Your task to perform on an android device: Search for a new phone on Amazon. Image 0: 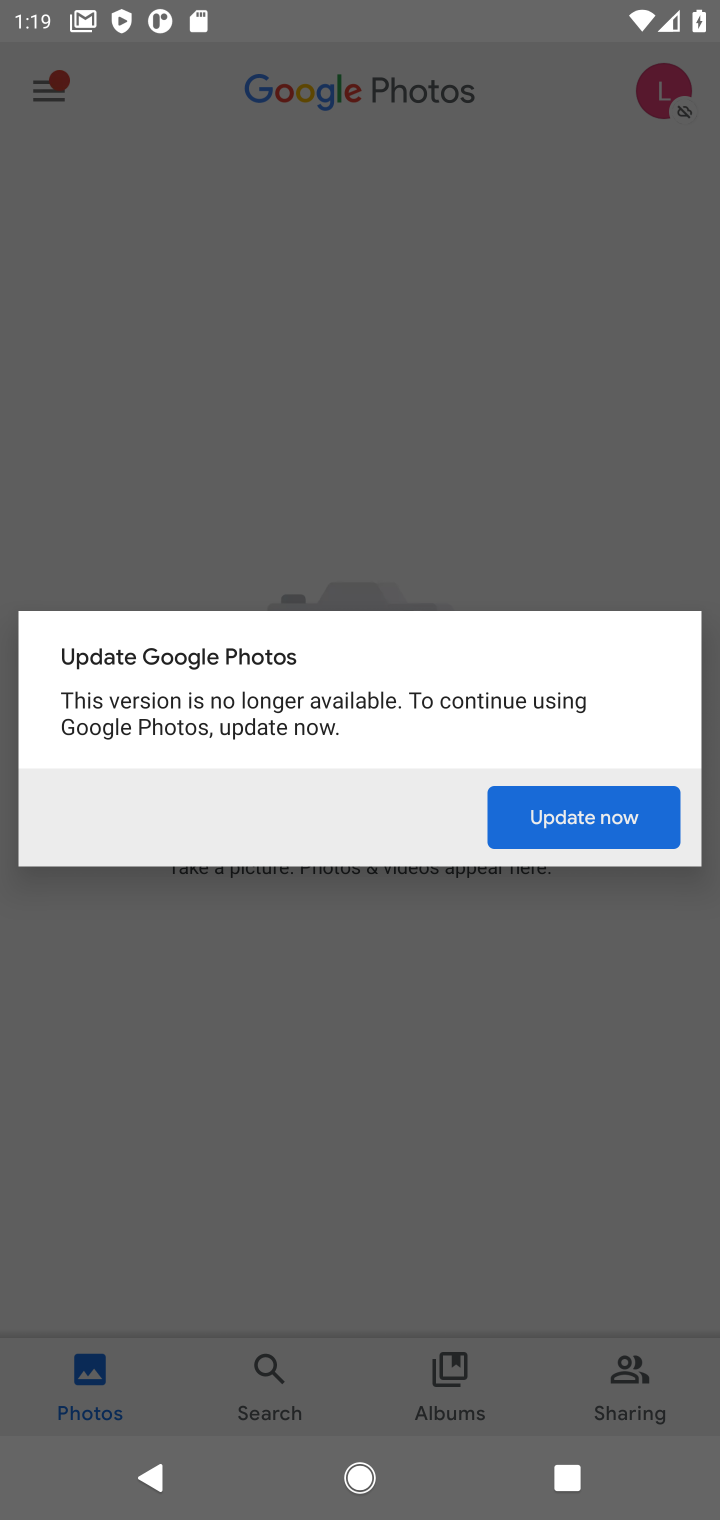
Step 0: press home button
Your task to perform on an android device: Search for a new phone on Amazon. Image 1: 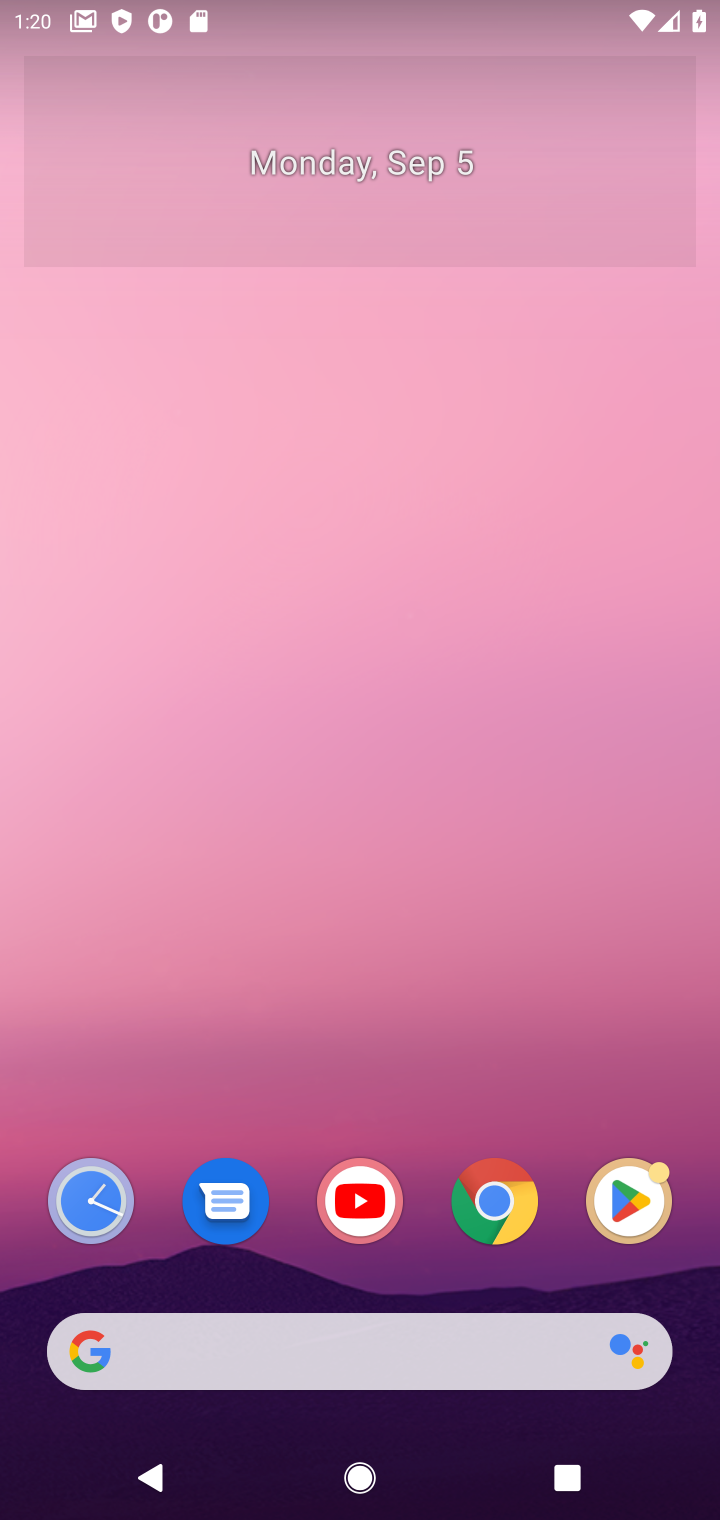
Step 1: click (474, 1201)
Your task to perform on an android device: Search for a new phone on Amazon. Image 2: 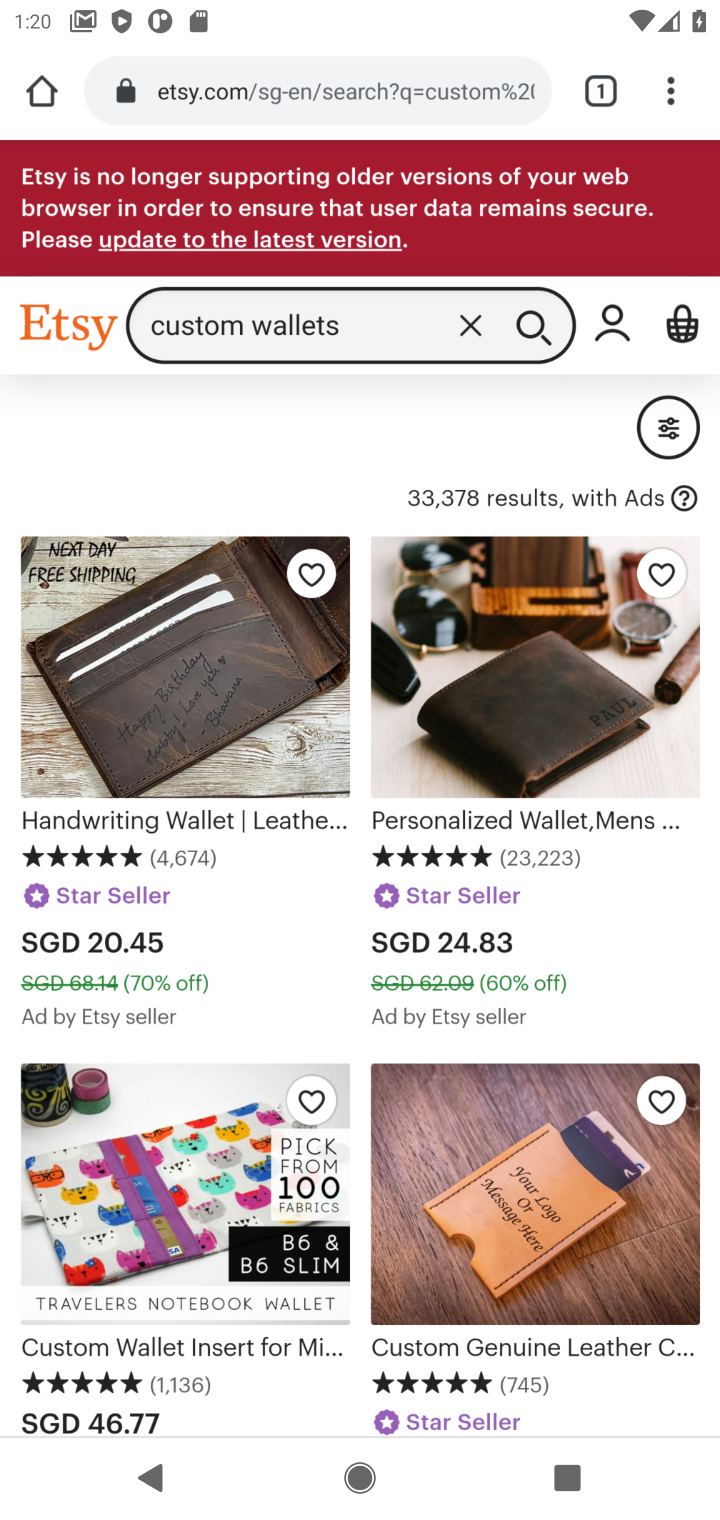
Step 2: click (480, 1193)
Your task to perform on an android device: Search for a new phone on Amazon. Image 3: 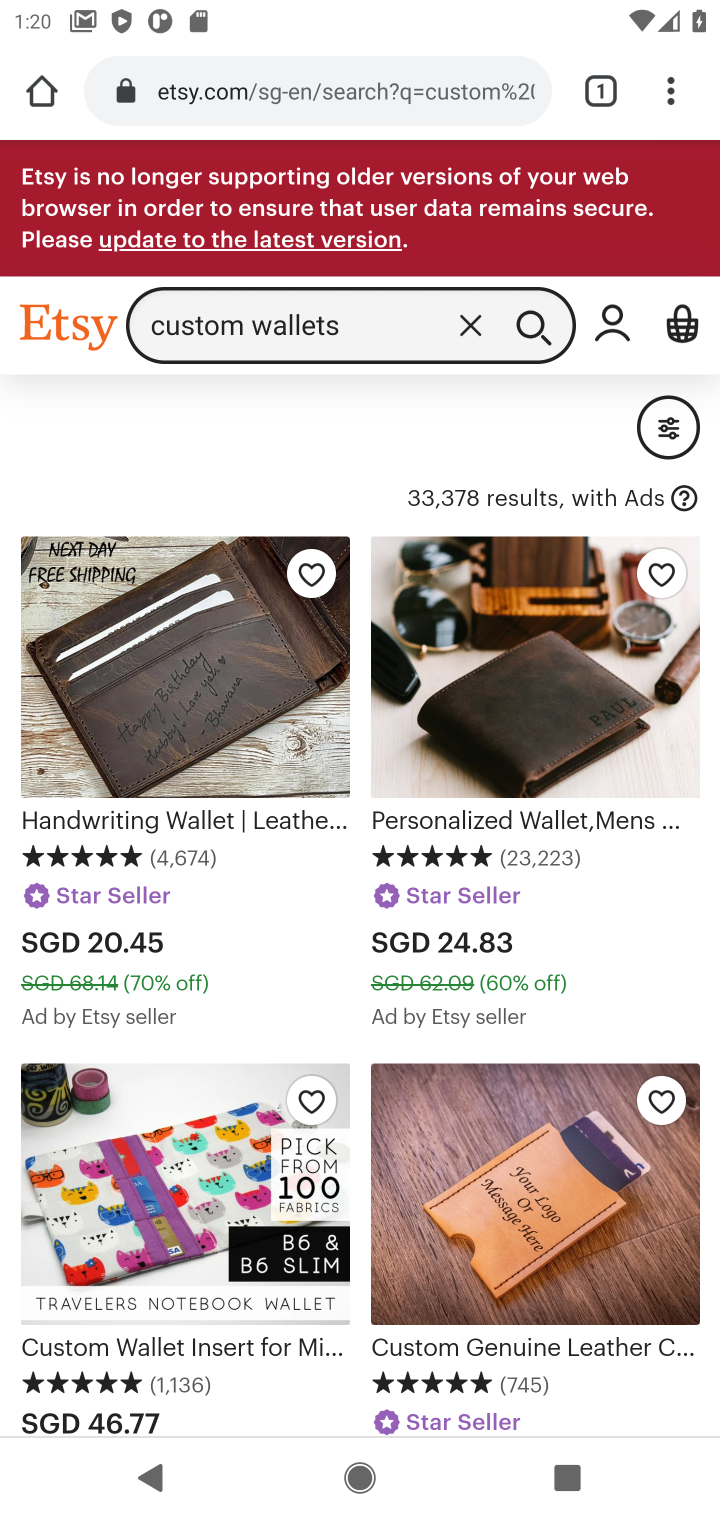
Step 3: click (421, 99)
Your task to perform on an android device: Search for a new phone on Amazon. Image 4: 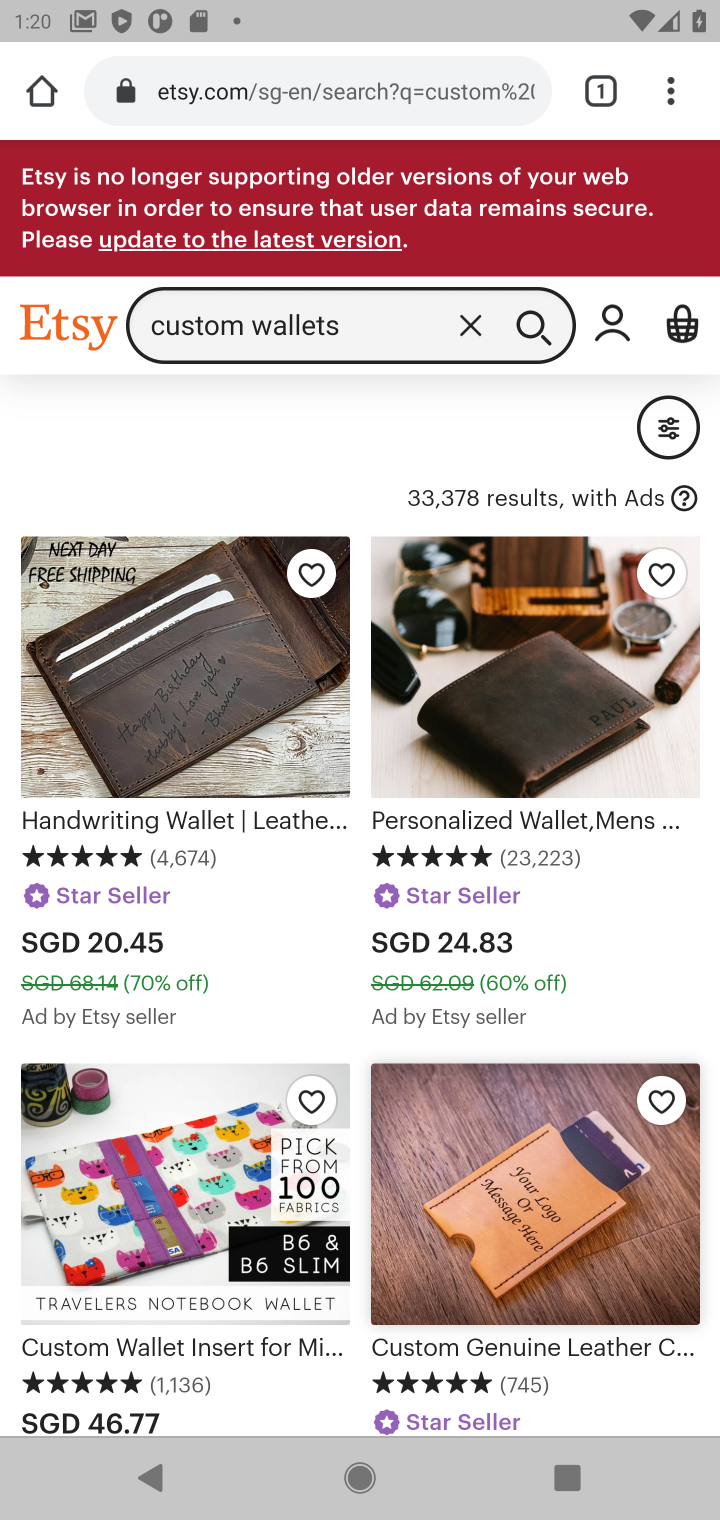
Step 4: click (427, 95)
Your task to perform on an android device: Search for a new phone on Amazon. Image 5: 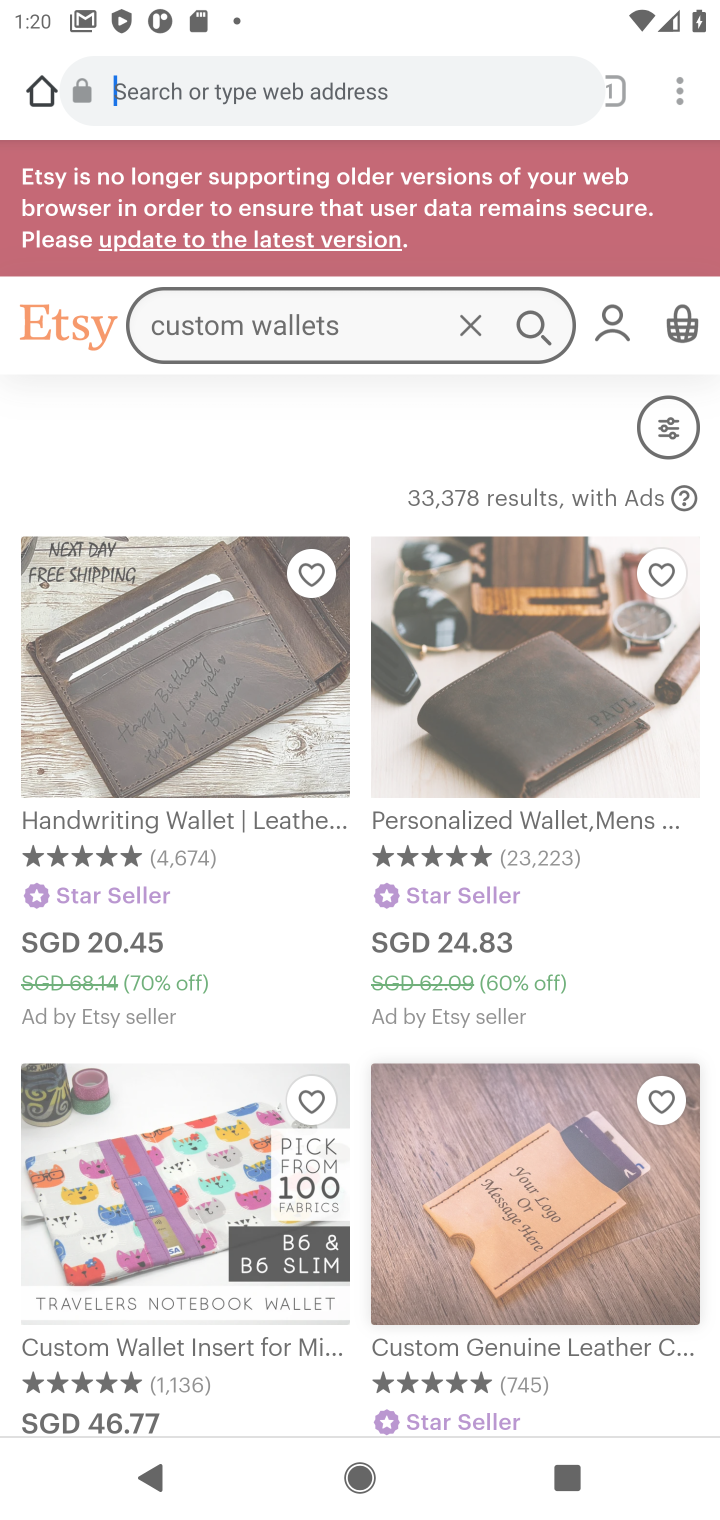
Step 5: click (414, 82)
Your task to perform on an android device: Search for a new phone on Amazon. Image 6: 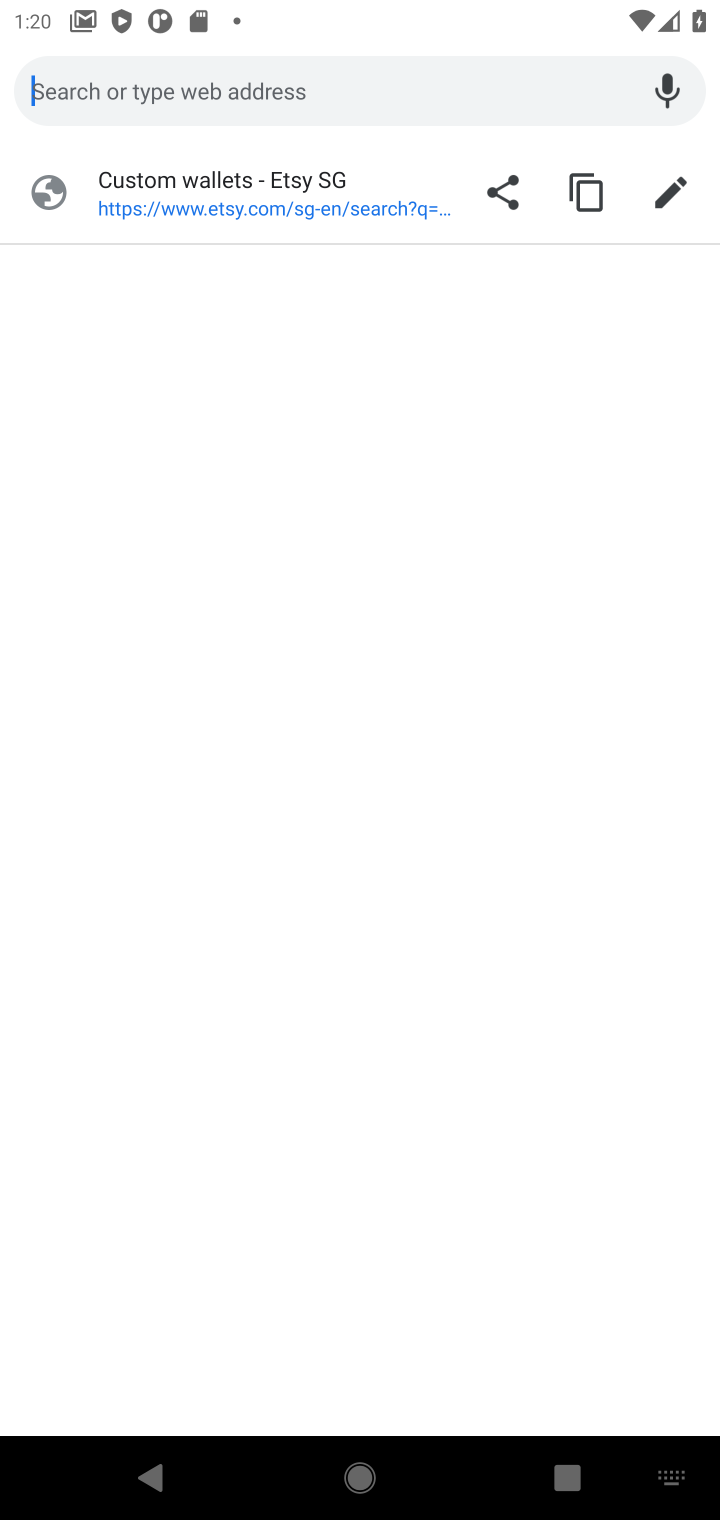
Step 6: click (395, 88)
Your task to perform on an android device: Search for a new phone on Amazon. Image 7: 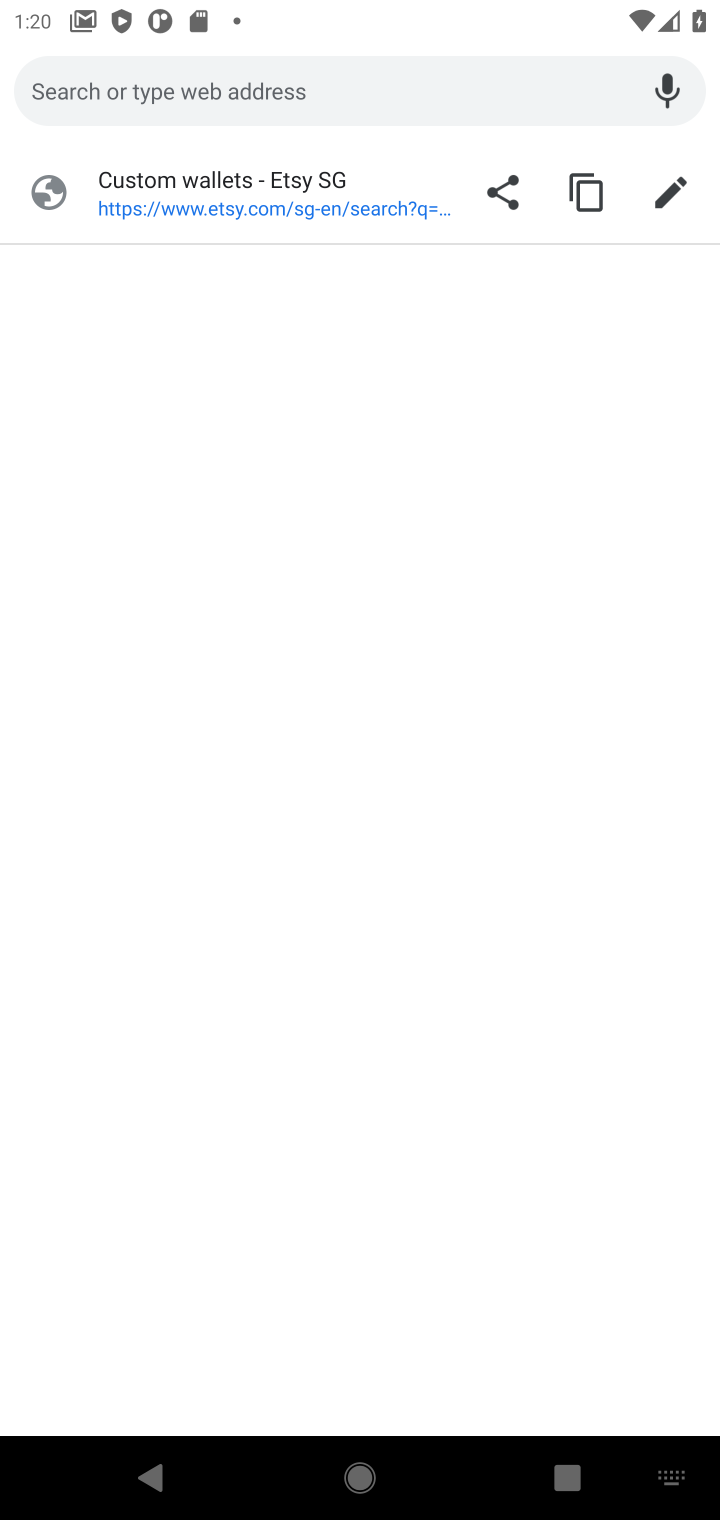
Step 7: type "Amazon"
Your task to perform on an android device: Search for a new phone on Amazon. Image 8: 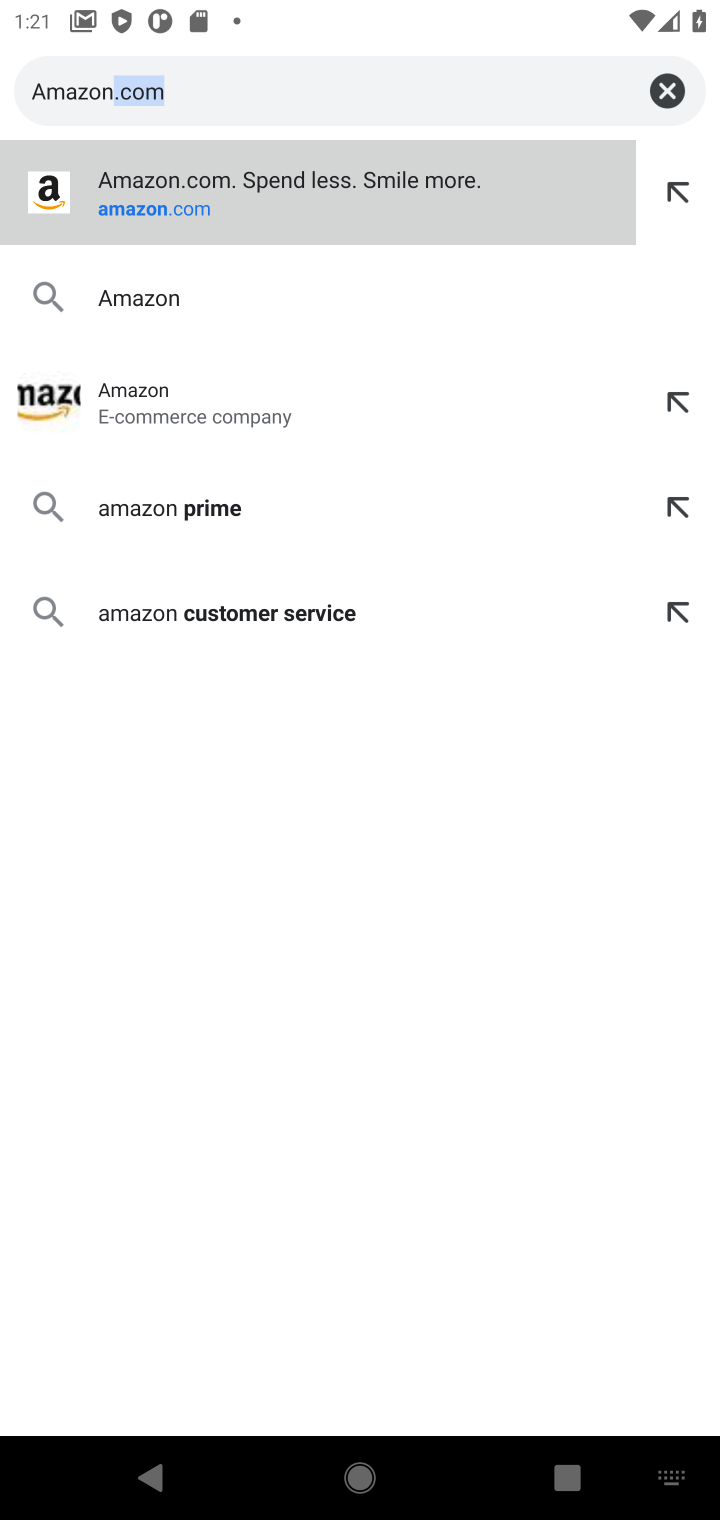
Step 8: press enter
Your task to perform on an android device: Search for a new phone on Amazon. Image 9: 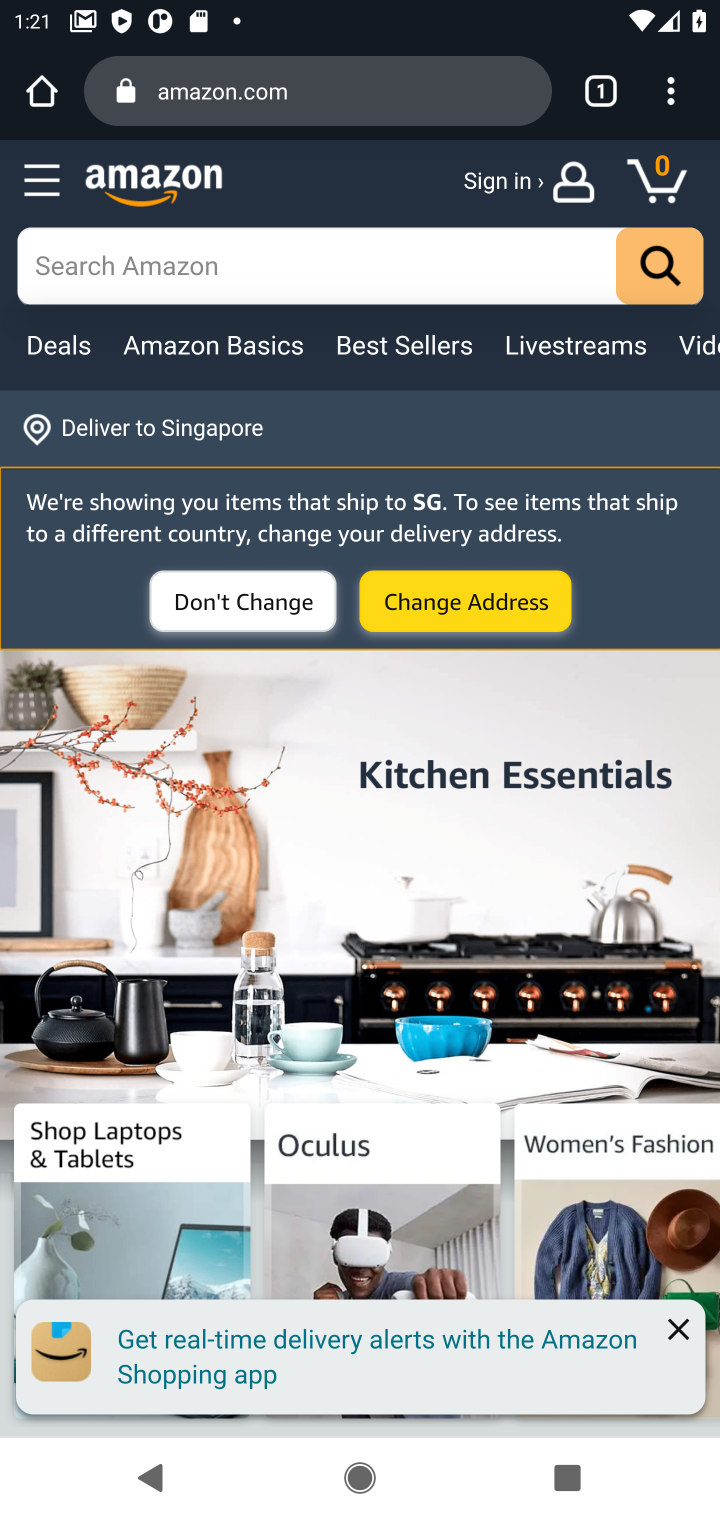
Step 9: click (333, 282)
Your task to perform on an android device: Search for a new phone on Amazon. Image 10: 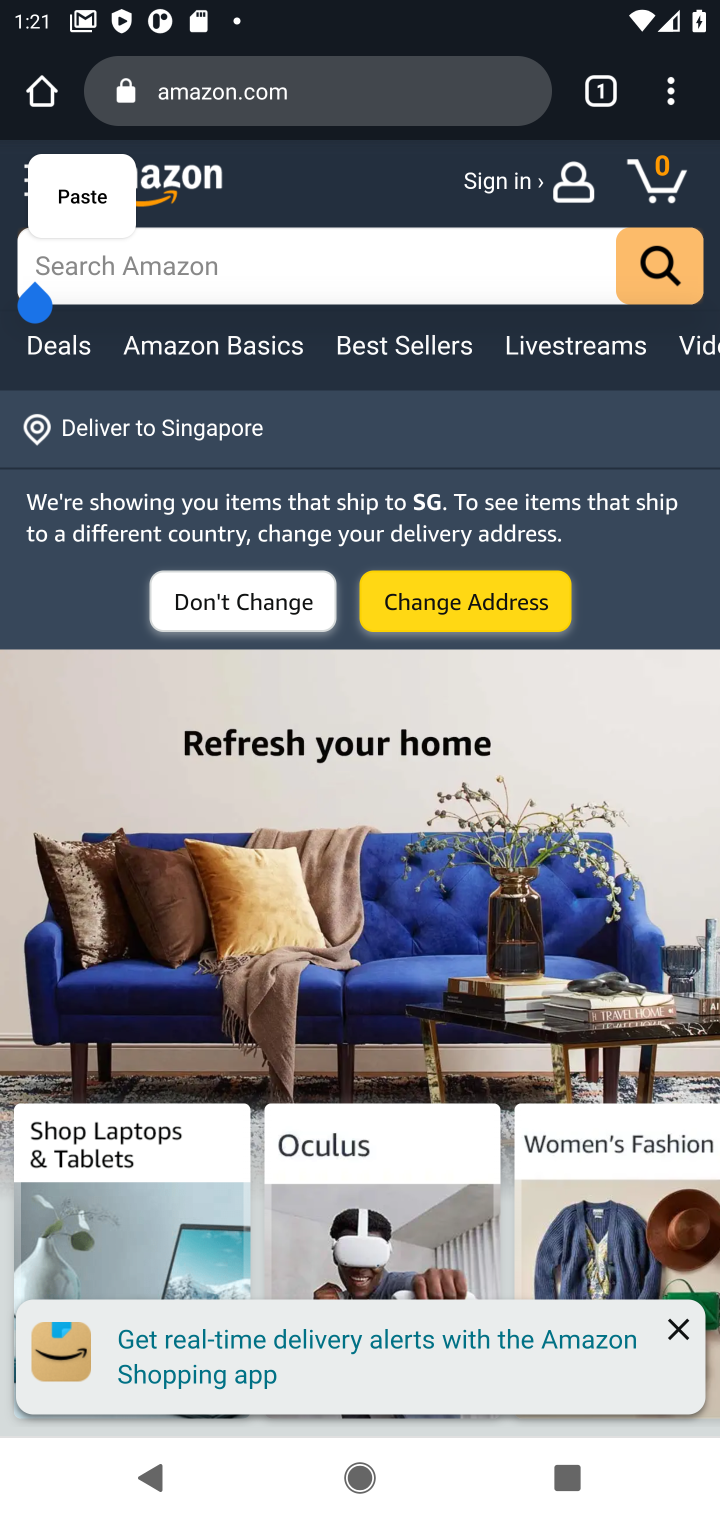
Step 10: click (333, 282)
Your task to perform on an android device: Search for a new phone on Amazon. Image 11: 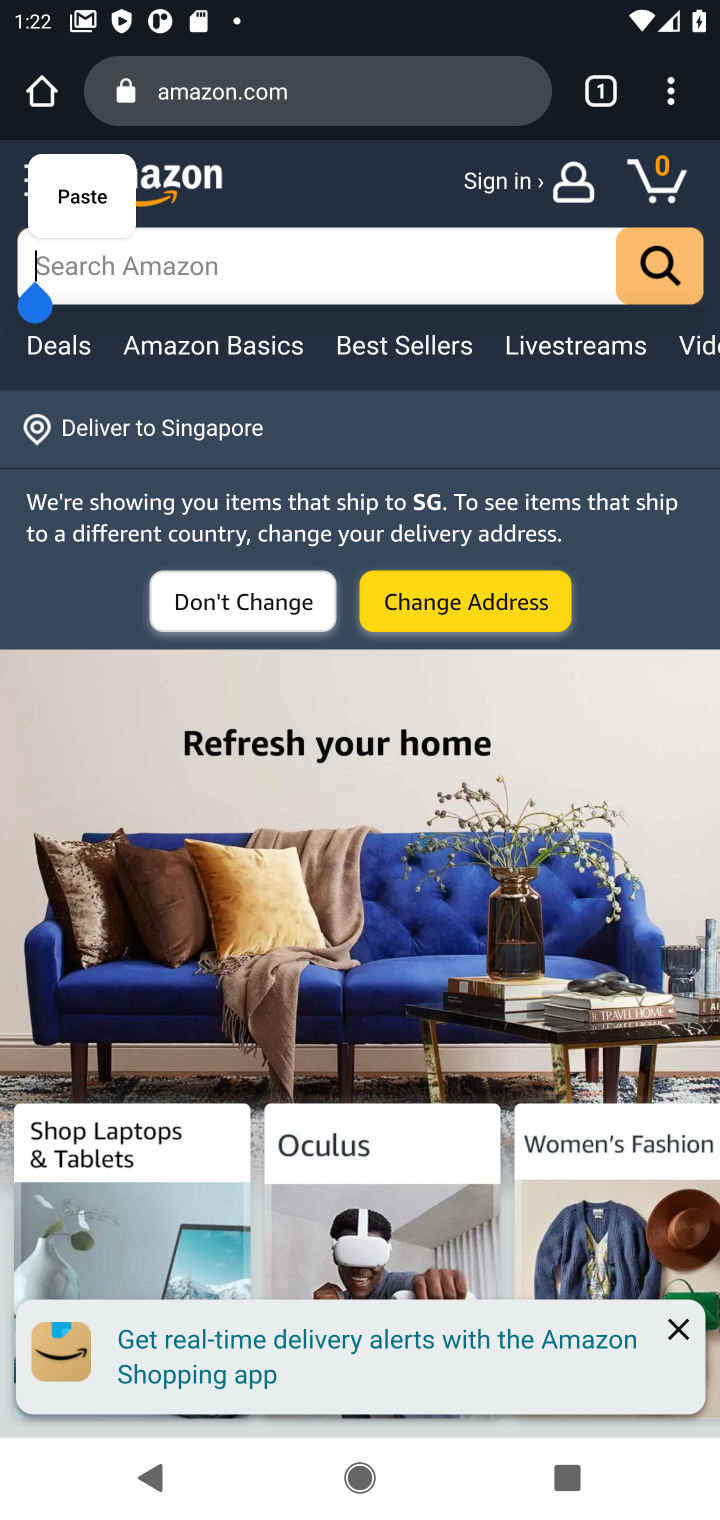
Step 11: press enter
Your task to perform on an android device: Search for a new phone on Amazon. Image 12: 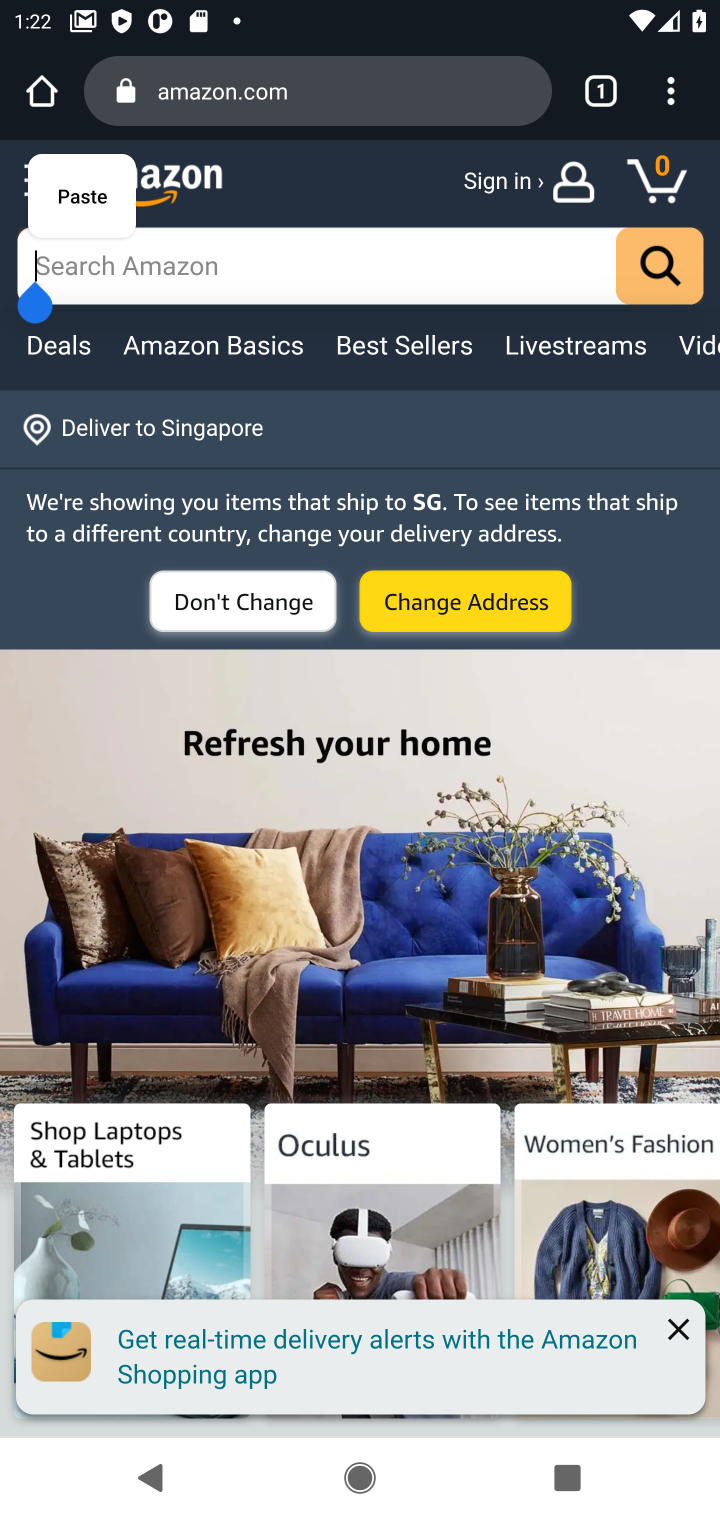
Step 12: type "new phone"
Your task to perform on an android device: Search for a new phone on Amazon. Image 13: 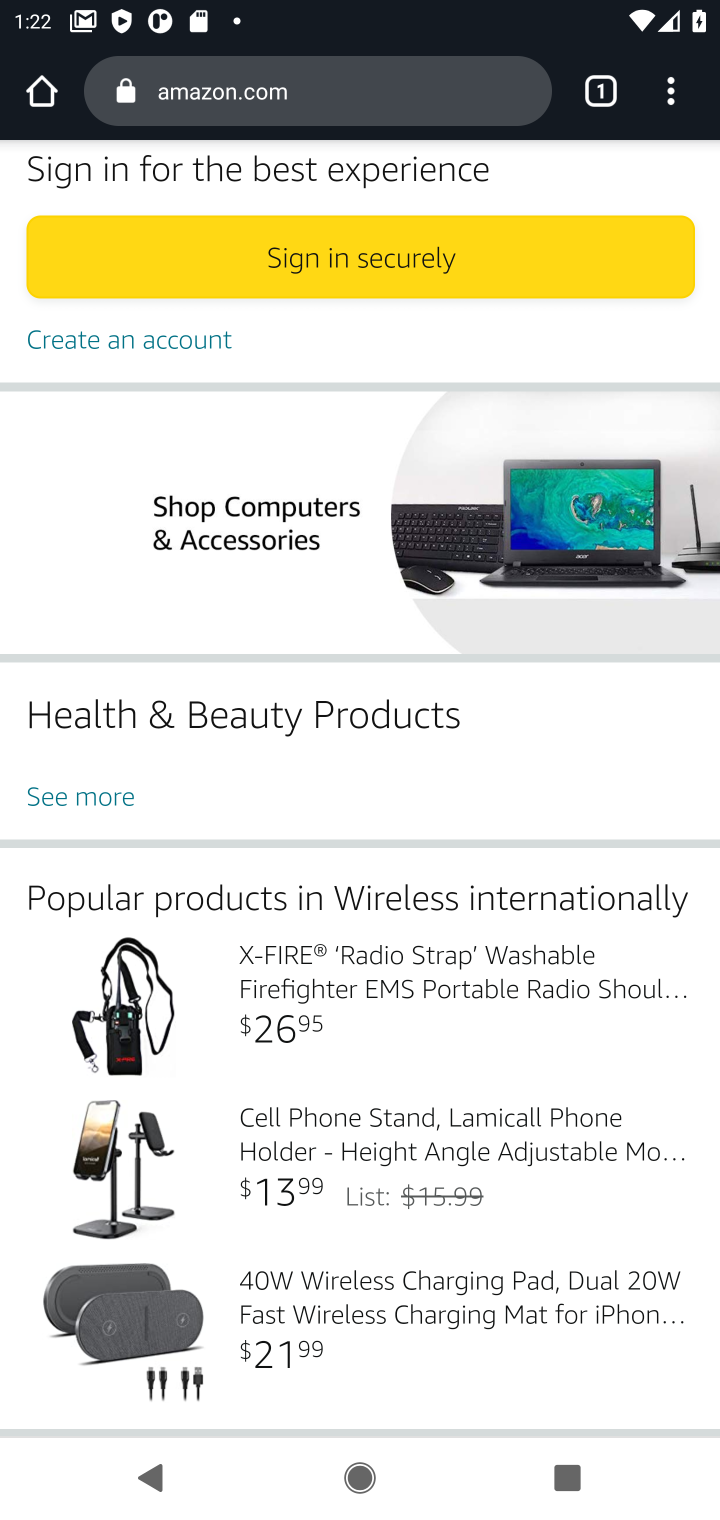
Step 13: drag from (356, 1101) to (348, 1250)
Your task to perform on an android device: Search for a new phone on Amazon. Image 14: 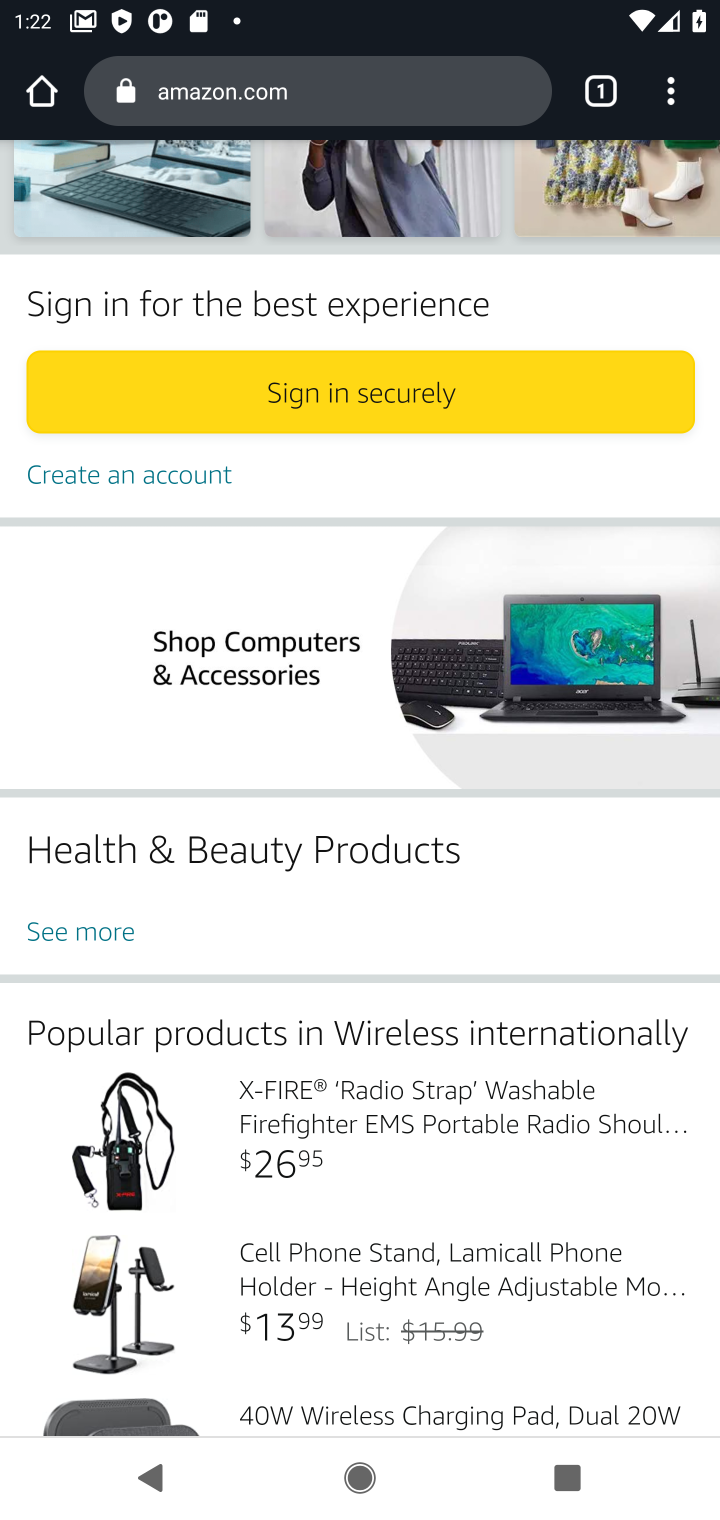
Step 14: drag from (363, 382) to (412, 1285)
Your task to perform on an android device: Search for a new phone on Amazon. Image 15: 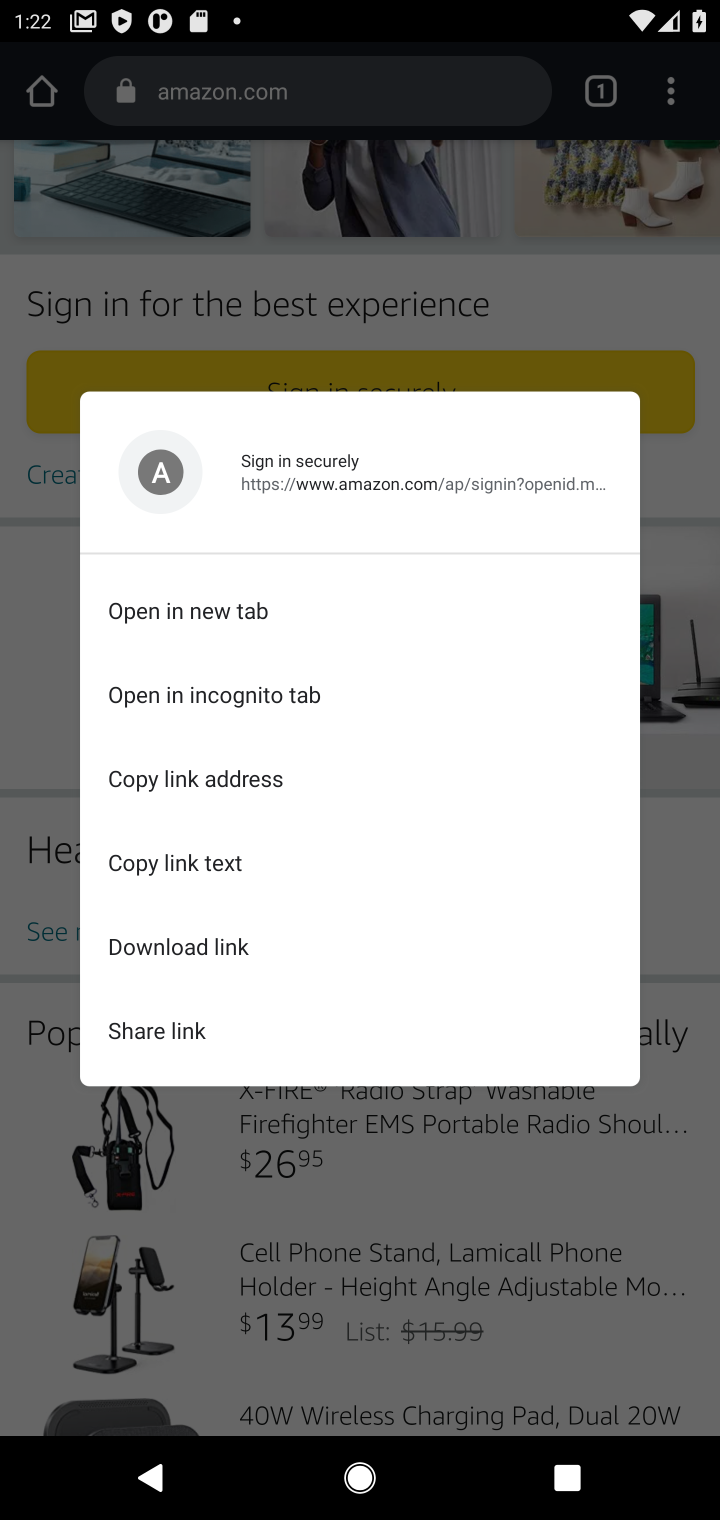
Step 15: click (696, 836)
Your task to perform on an android device: Search for a new phone on Amazon. Image 16: 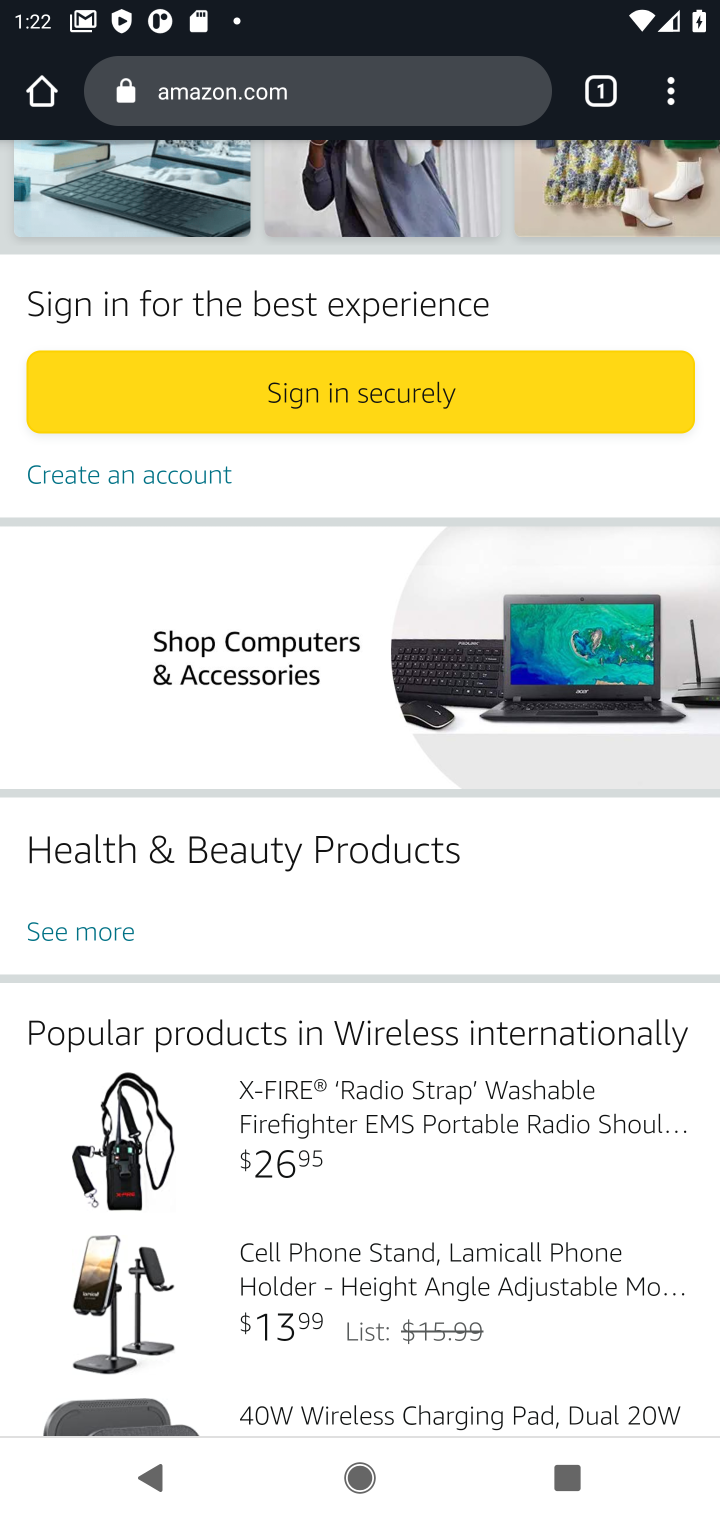
Step 16: drag from (401, 817) to (421, 1193)
Your task to perform on an android device: Search for a new phone on Amazon. Image 17: 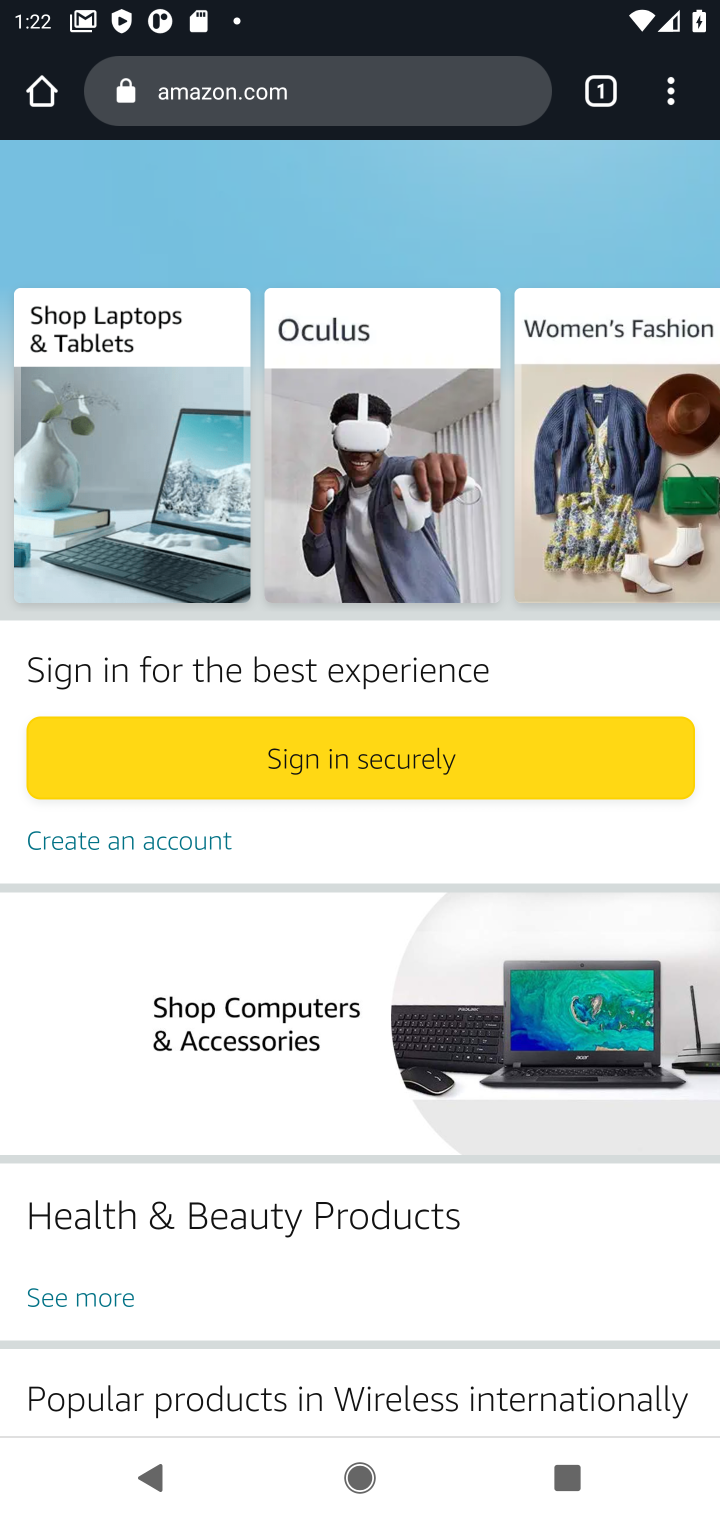
Step 17: drag from (314, 238) to (356, 1281)
Your task to perform on an android device: Search for a new phone on Amazon. Image 18: 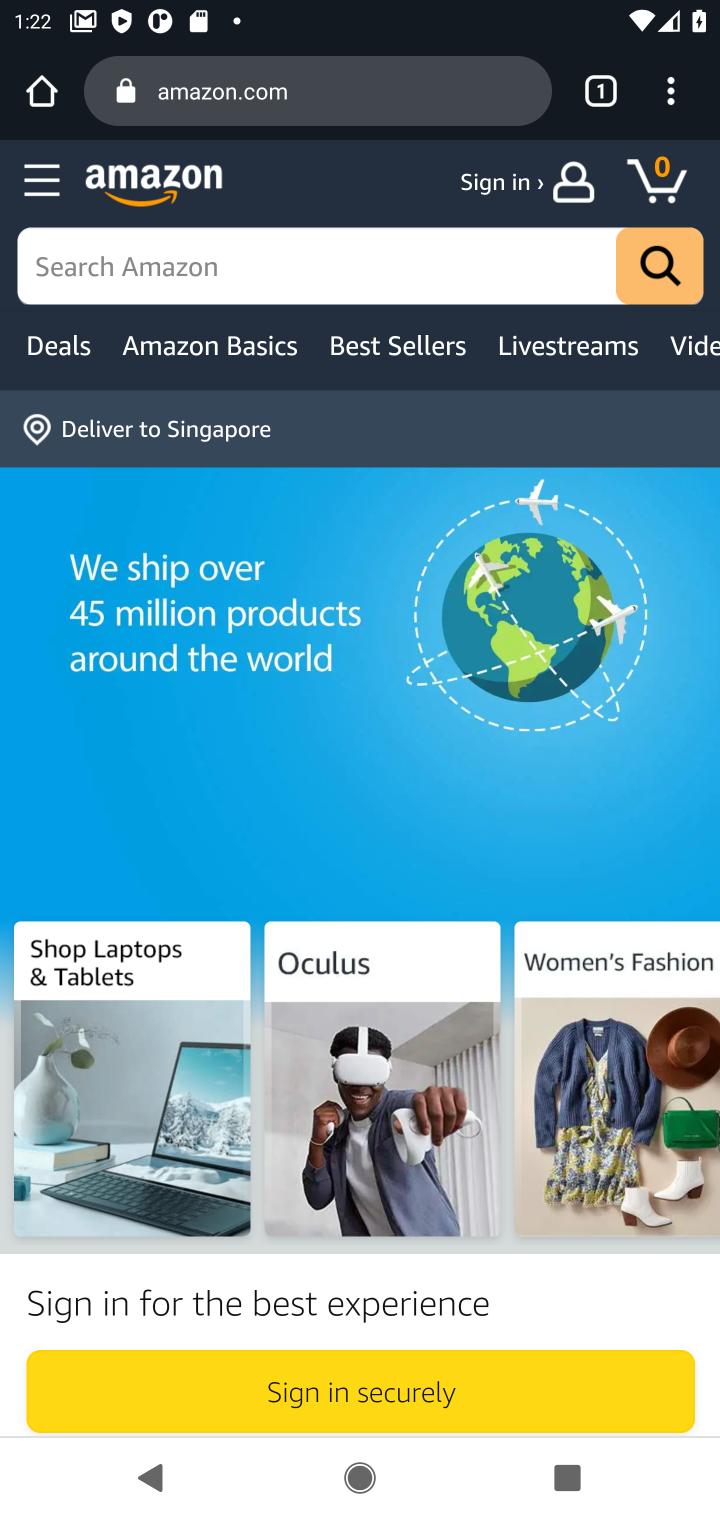
Step 18: click (230, 271)
Your task to perform on an android device: Search for a new phone on Amazon. Image 19: 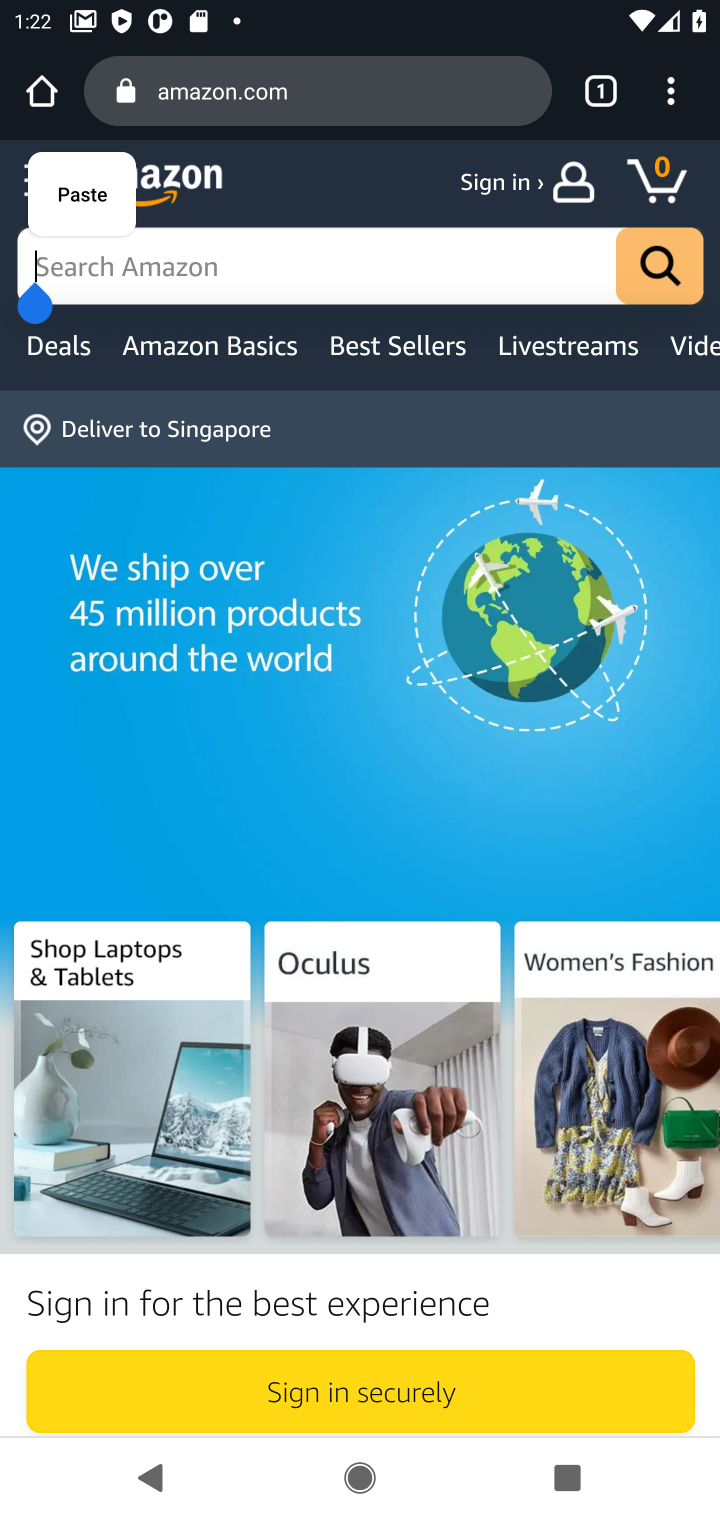
Step 19: click (229, 263)
Your task to perform on an android device: Search for a new phone on Amazon. Image 20: 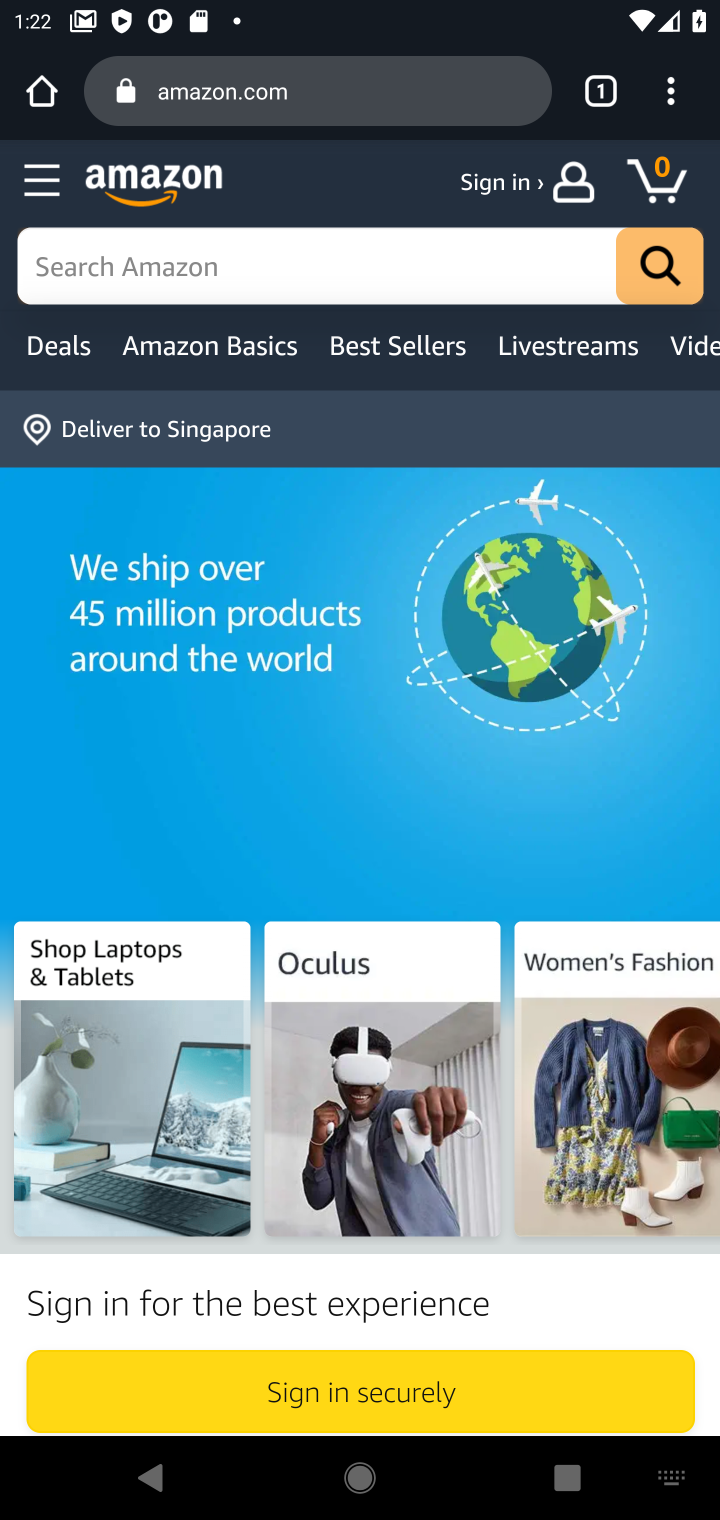
Step 20: type "new phone"
Your task to perform on an android device: Search for a new phone on Amazon. Image 21: 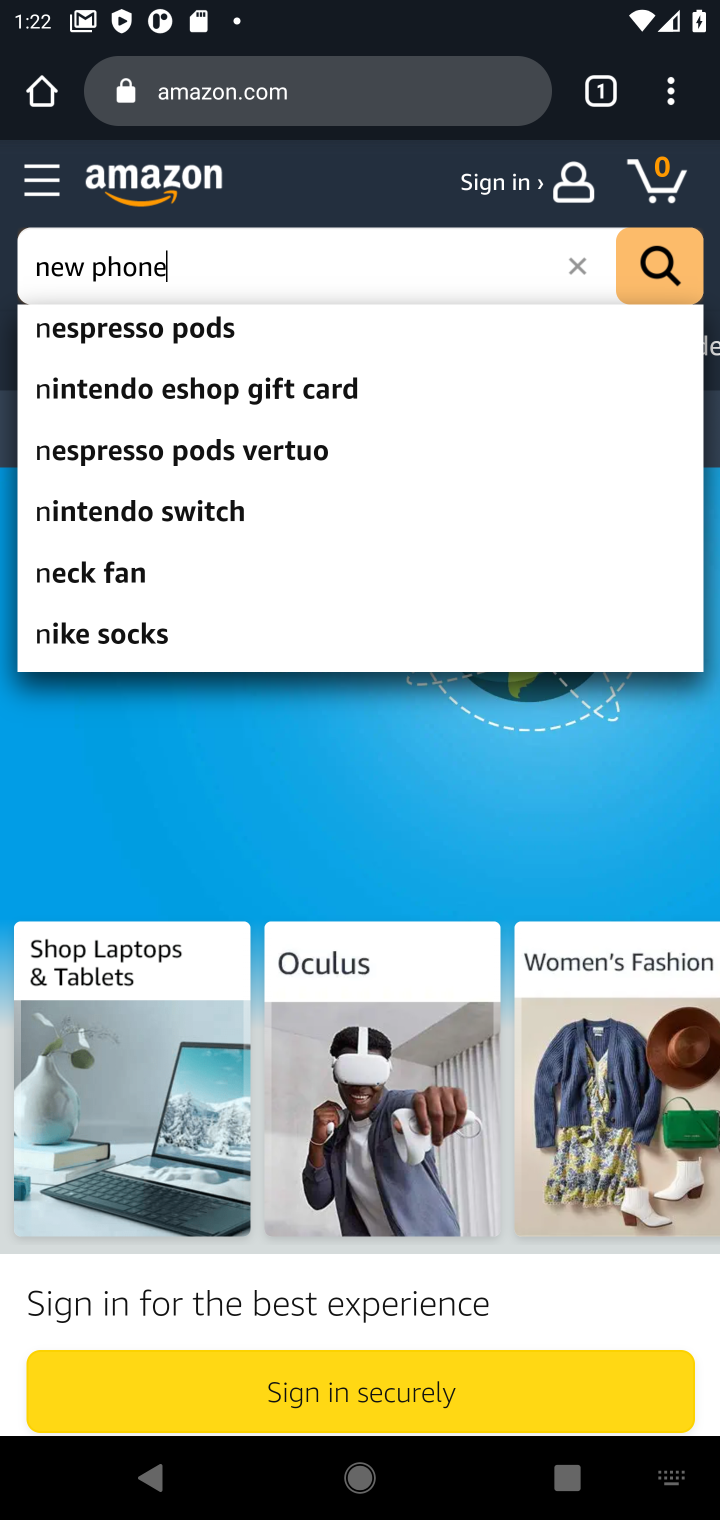
Step 21: press enter
Your task to perform on an android device: Search for a new phone on Amazon. Image 22: 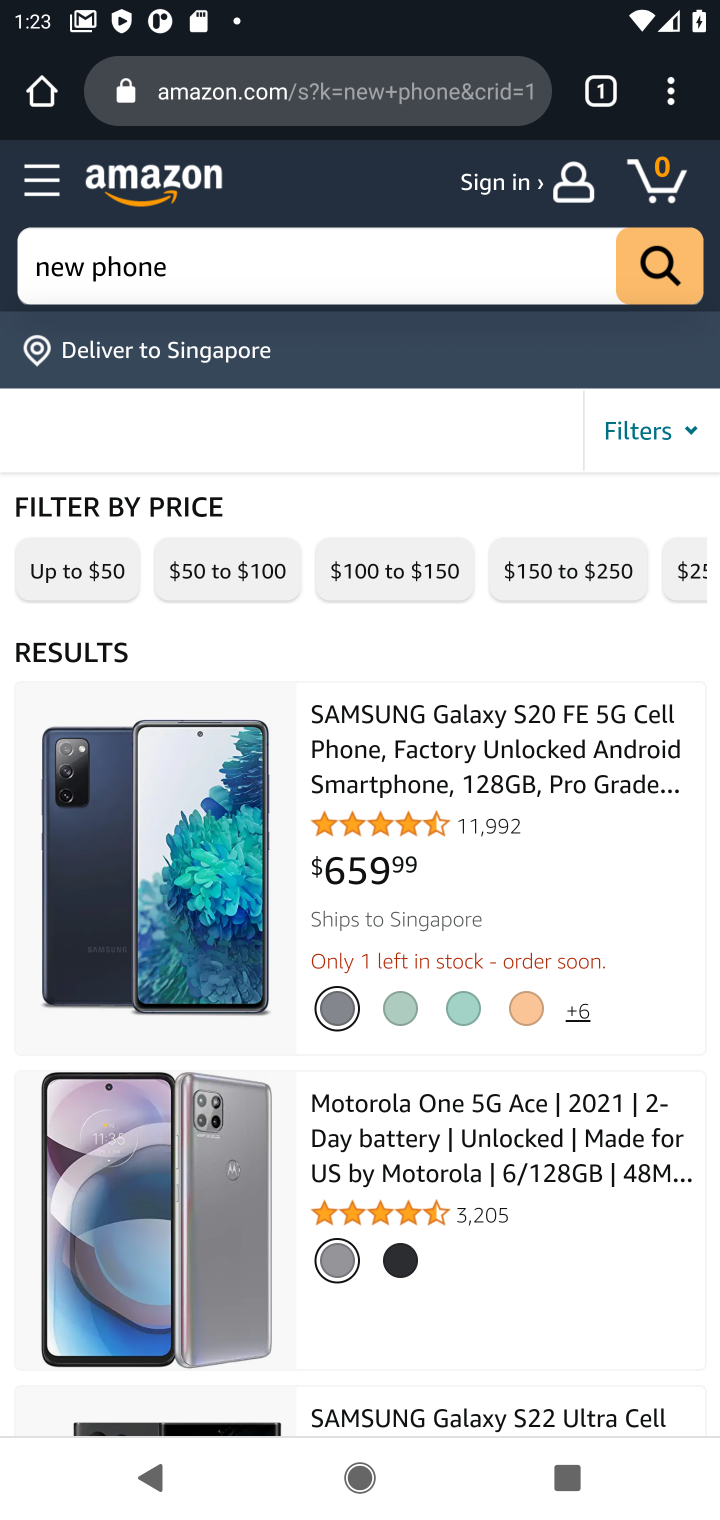
Step 22: task complete